Your task to perform on an android device: Add alienware aurora to the cart on costco Image 0: 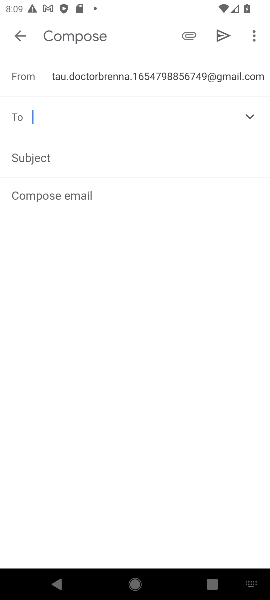
Step 0: press home button
Your task to perform on an android device: Add alienware aurora to the cart on costco Image 1: 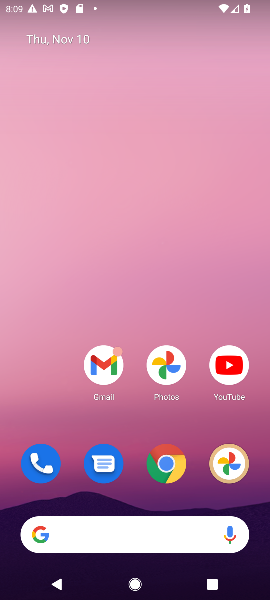
Step 1: click (166, 466)
Your task to perform on an android device: Add alienware aurora to the cart on costco Image 2: 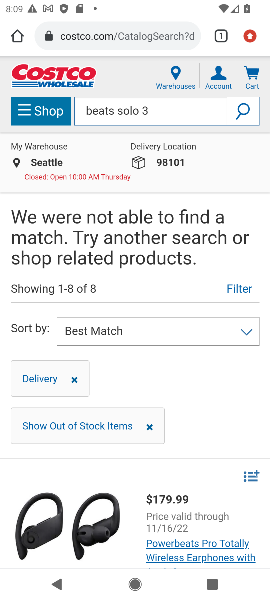
Step 2: click (166, 114)
Your task to perform on an android device: Add alienware aurora to the cart on costco Image 3: 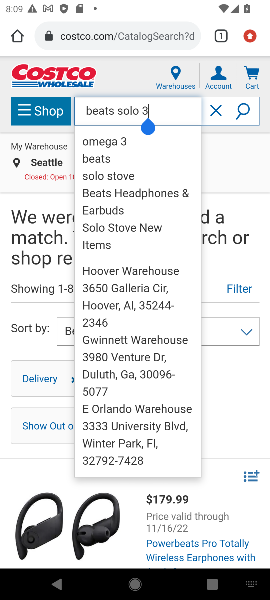
Step 3: click (220, 107)
Your task to perform on an android device: Add alienware aurora to the cart on costco Image 4: 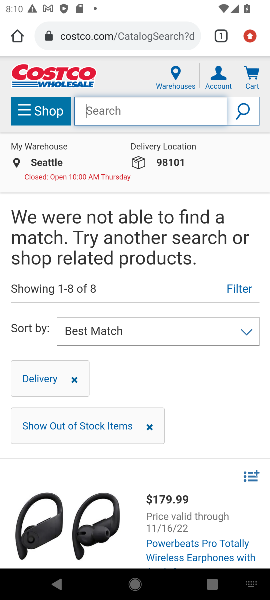
Step 4: type " alienware aurora "
Your task to perform on an android device: Add alienware aurora to the cart on costco Image 5: 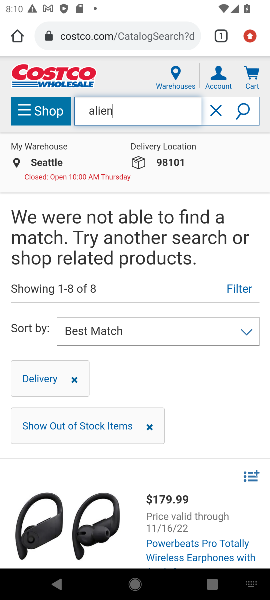
Step 5: press enter
Your task to perform on an android device: Add alienware aurora to the cart on costco Image 6: 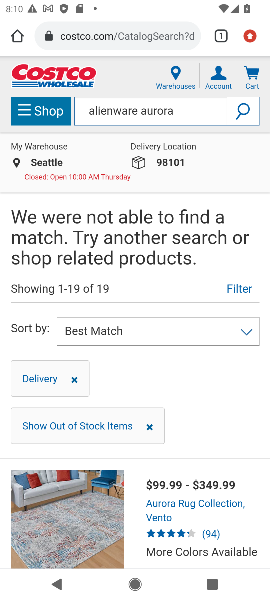
Step 6: task complete